Your task to perform on an android device: toggle airplane mode Image 0: 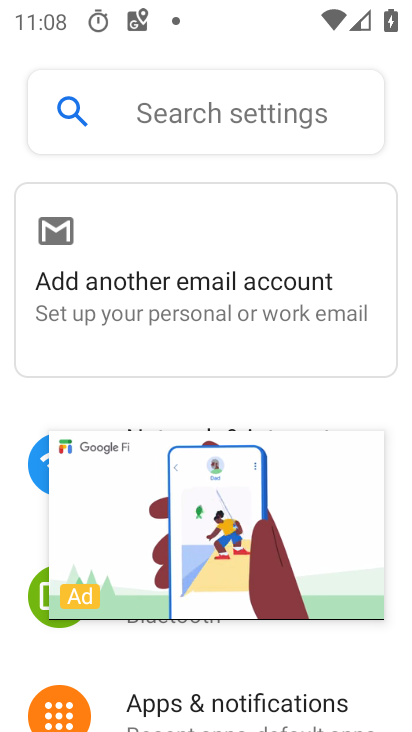
Step 0: press home button
Your task to perform on an android device: toggle airplane mode Image 1: 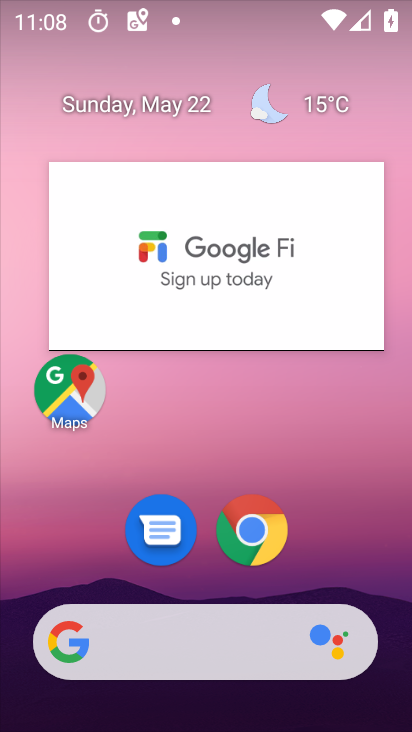
Step 1: click (316, 209)
Your task to perform on an android device: toggle airplane mode Image 2: 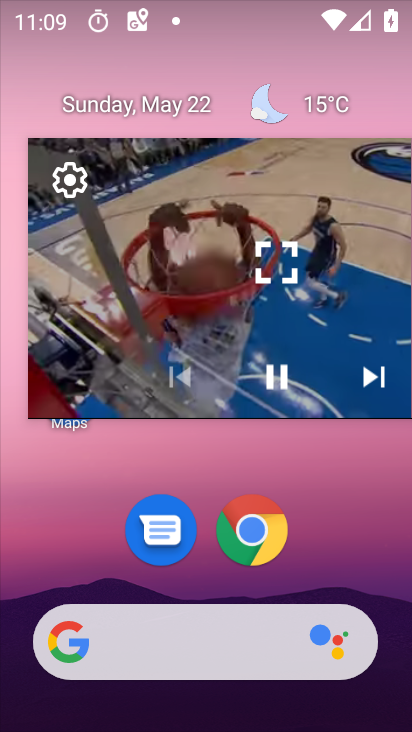
Step 2: click (356, 216)
Your task to perform on an android device: toggle airplane mode Image 3: 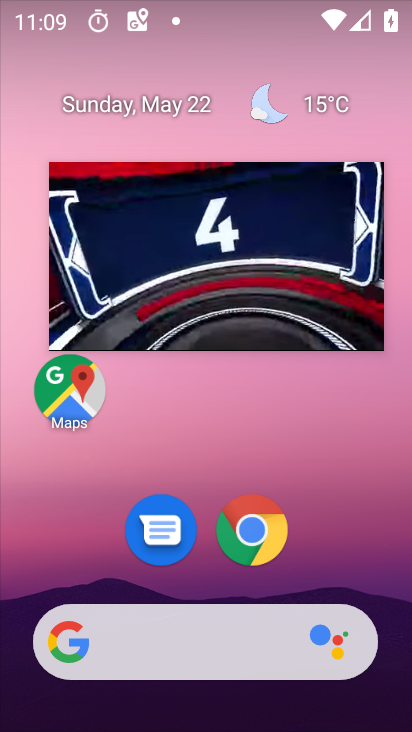
Step 3: click (339, 185)
Your task to perform on an android device: toggle airplane mode Image 4: 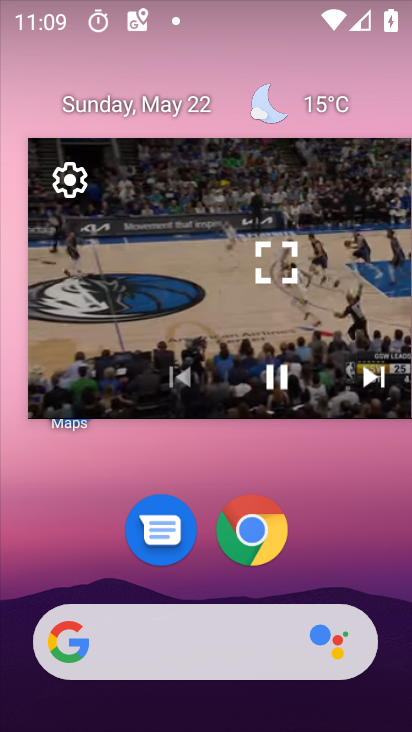
Step 4: click (366, 175)
Your task to perform on an android device: toggle airplane mode Image 5: 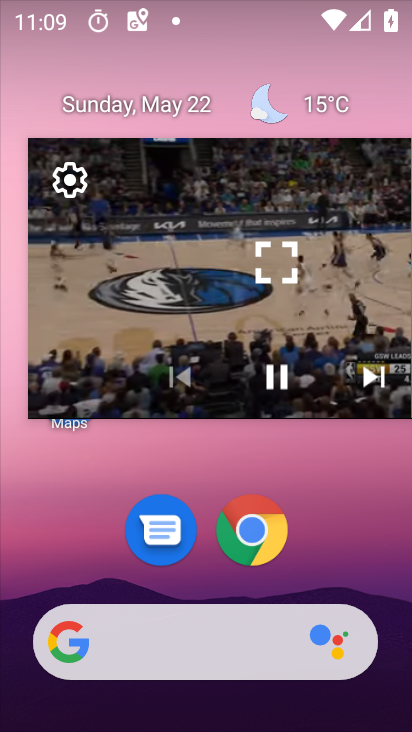
Step 5: click (378, 168)
Your task to perform on an android device: toggle airplane mode Image 6: 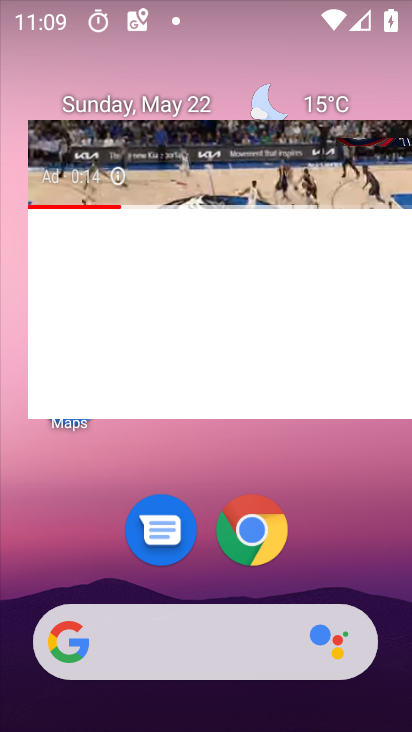
Step 6: click (381, 159)
Your task to perform on an android device: toggle airplane mode Image 7: 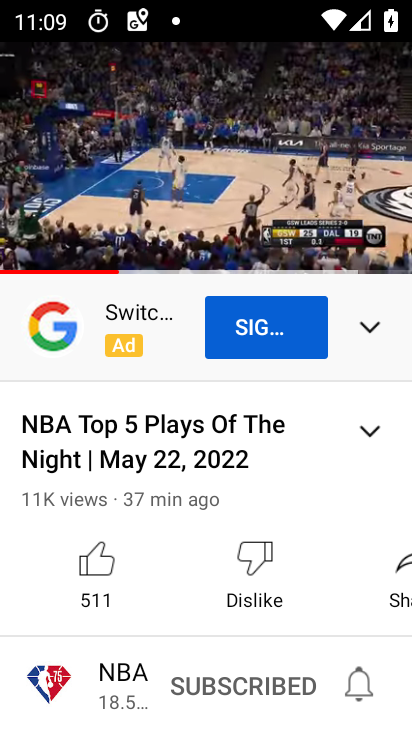
Step 7: press home button
Your task to perform on an android device: toggle airplane mode Image 8: 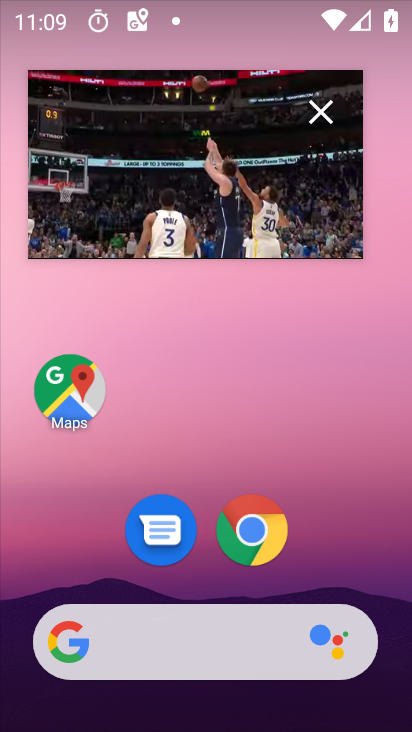
Step 8: click (320, 119)
Your task to perform on an android device: toggle airplane mode Image 9: 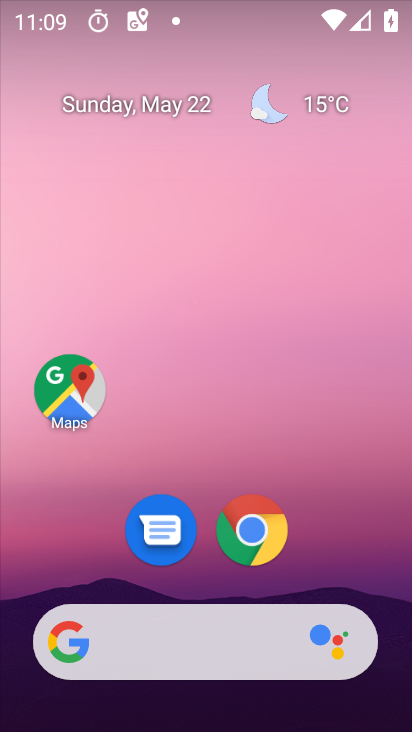
Step 9: drag from (385, 641) to (360, 155)
Your task to perform on an android device: toggle airplane mode Image 10: 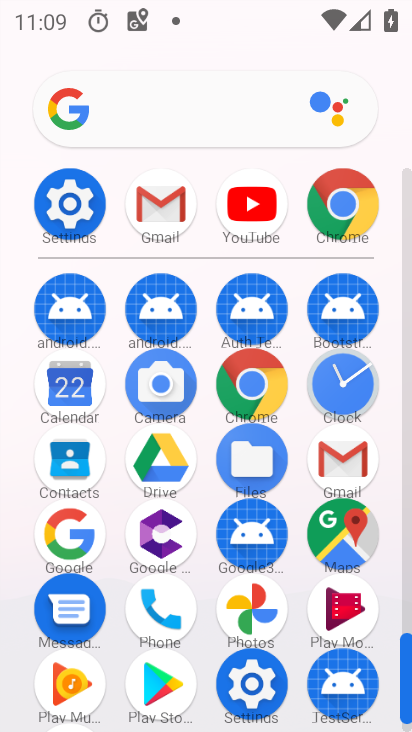
Step 10: click (58, 201)
Your task to perform on an android device: toggle airplane mode Image 11: 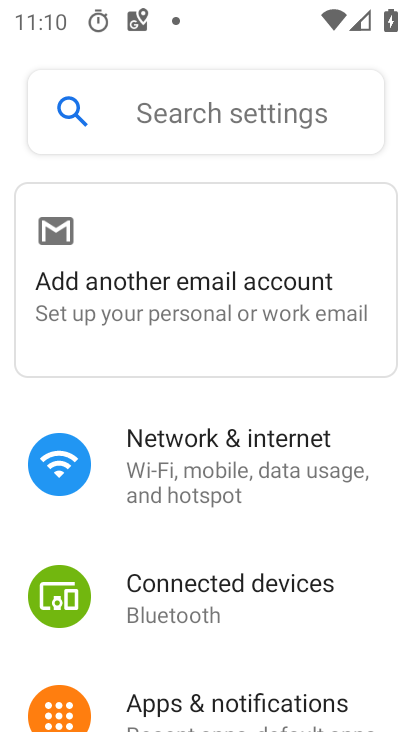
Step 11: click (201, 452)
Your task to perform on an android device: toggle airplane mode Image 12: 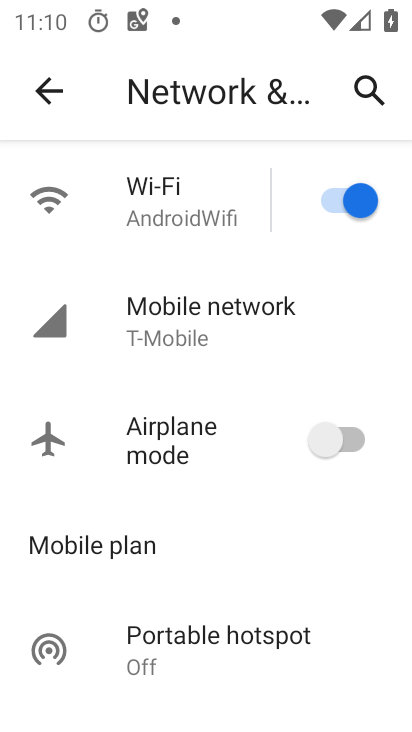
Step 12: click (336, 435)
Your task to perform on an android device: toggle airplane mode Image 13: 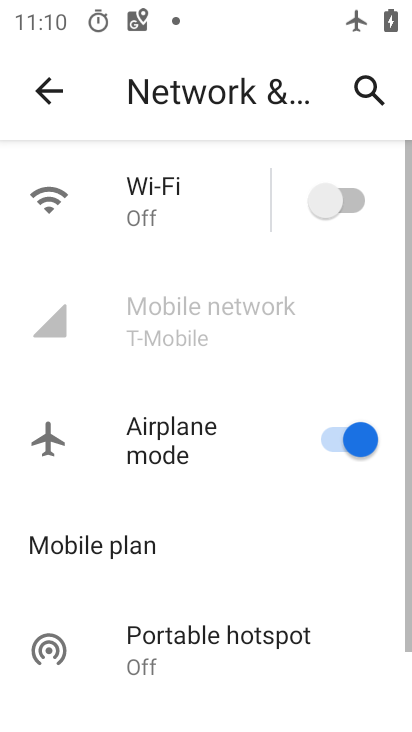
Step 13: task complete